Your task to perform on an android device: Turn on the flashlight Image 0: 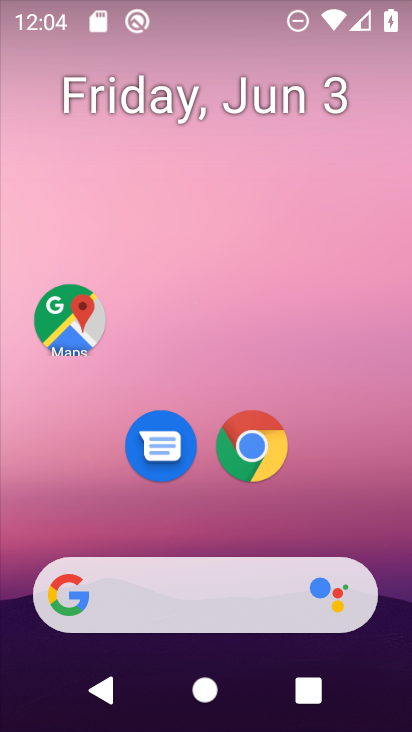
Step 0: drag from (259, 676) to (197, 287)
Your task to perform on an android device: Turn on the flashlight Image 1: 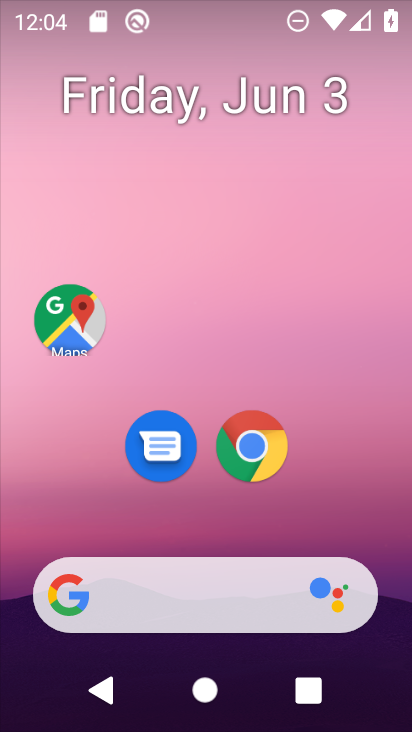
Step 1: task complete